Your task to perform on an android device: Clear the shopping cart on target.com. Search for "logitech g pro" on target.com, select the first entry, add it to the cart, then select checkout. Image 0: 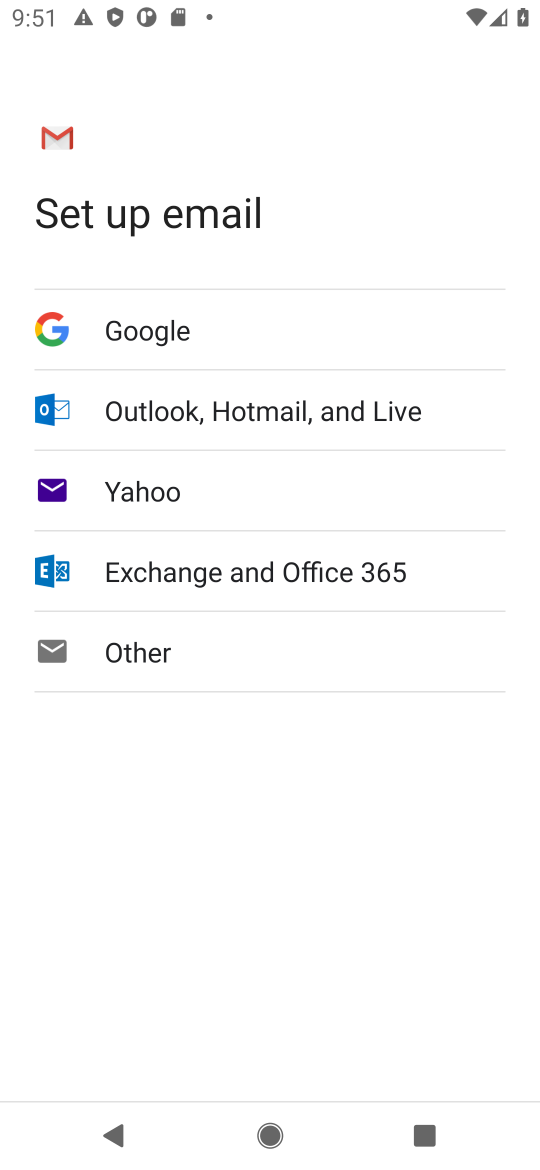
Step 0: press home button
Your task to perform on an android device: Clear the shopping cart on target.com. Search for "logitech g pro" on target.com, select the first entry, add it to the cart, then select checkout. Image 1: 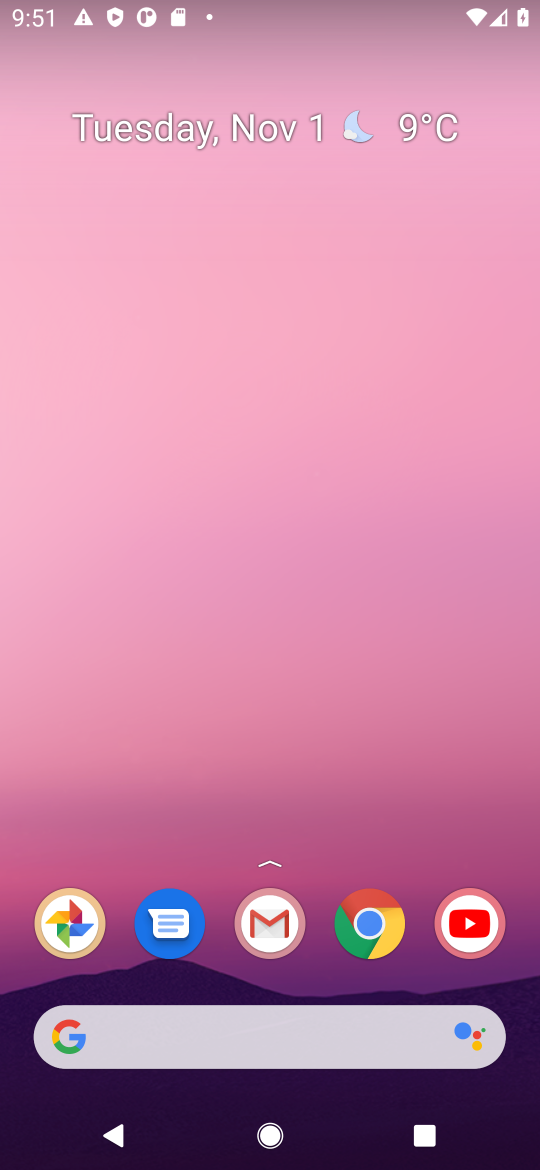
Step 1: drag from (322, 965) to (308, 93)
Your task to perform on an android device: Clear the shopping cart on target.com. Search for "logitech g pro" on target.com, select the first entry, add it to the cart, then select checkout. Image 2: 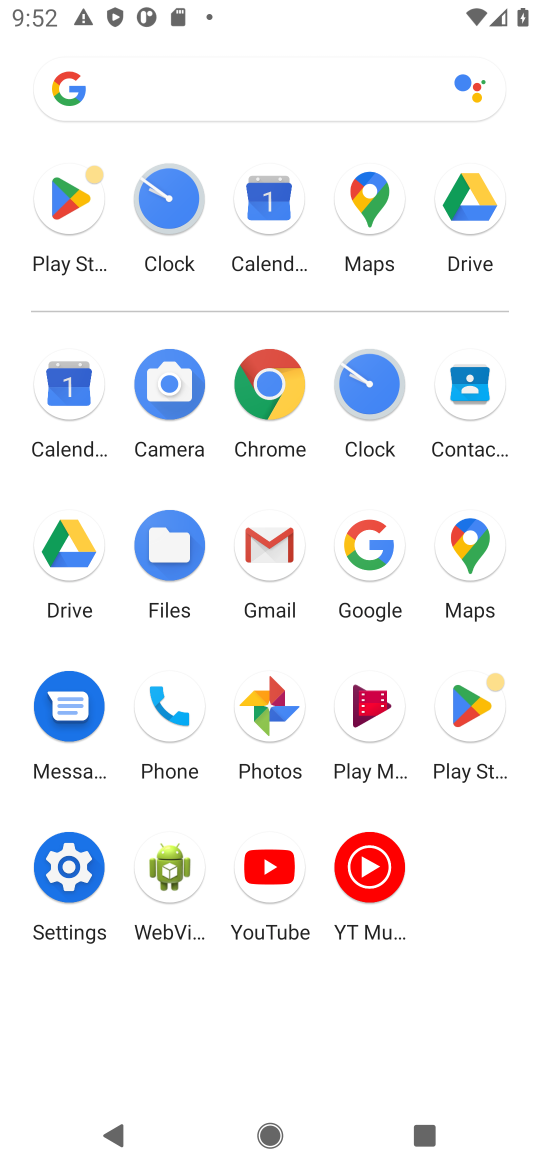
Step 2: click (263, 394)
Your task to perform on an android device: Clear the shopping cart on target.com. Search for "logitech g pro" on target.com, select the first entry, add it to the cart, then select checkout. Image 3: 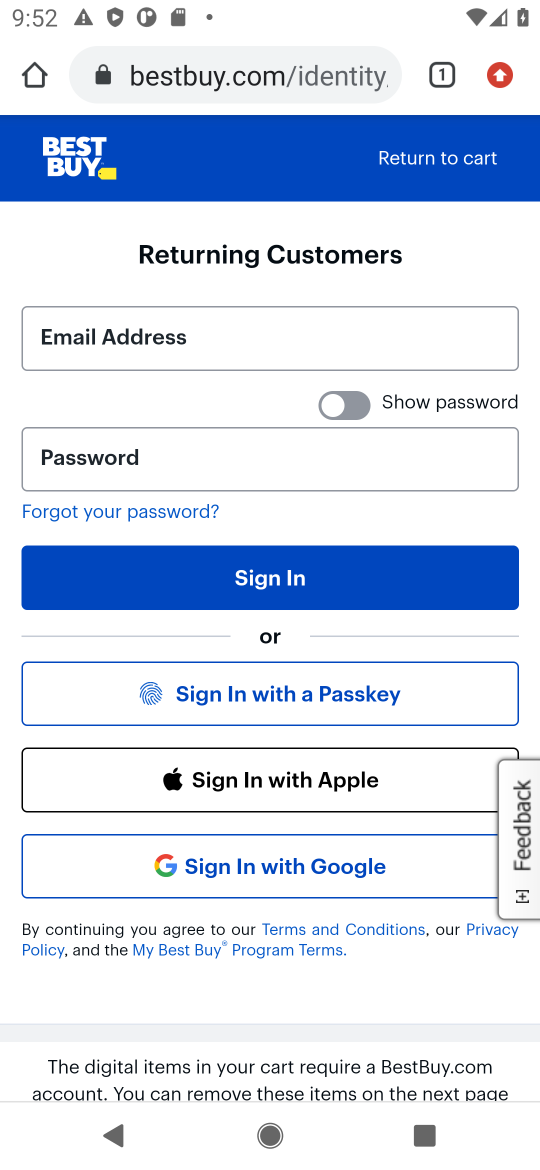
Step 3: click (299, 80)
Your task to perform on an android device: Clear the shopping cart on target.com. Search for "logitech g pro" on target.com, select the first entry, add it to the cart, then select checkout. Image 4: 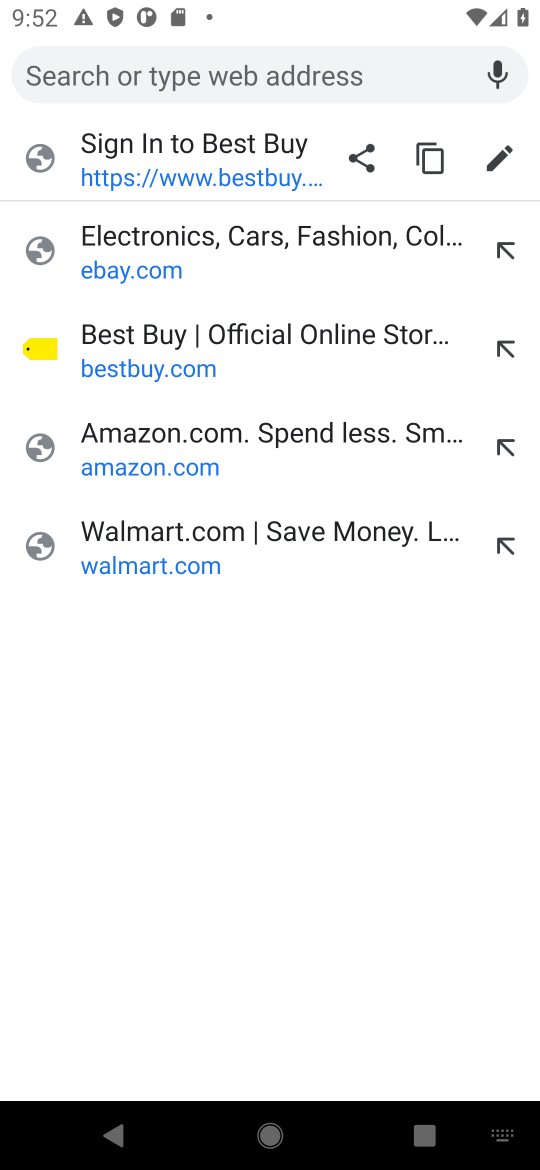
Step 4: type "target.com"
Your task to perform on an android device: Clear the shopping cart on target.com. Search for "logitech g pro" on target.com, select the first entry, add it to the cart, then select checkout. Image 5: 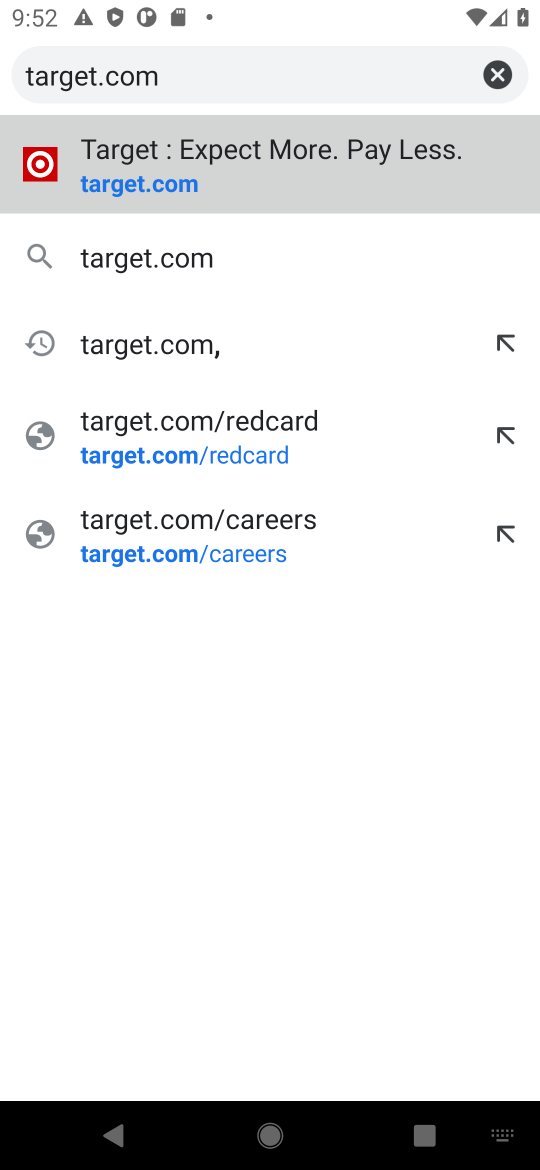
Step 5: press enter
Your task to perform on an android device: Clear the shopping cart on target.com. Search for "logitech g pro" on target.com, select the first entry, add it to the cart, then select checkout. Image 6: 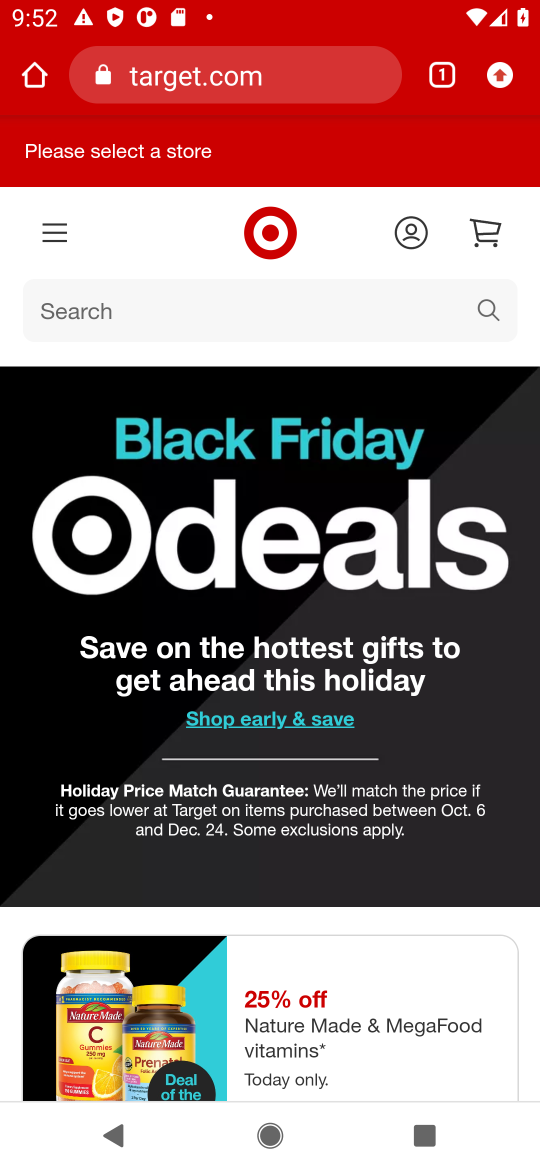
Step 6: drag from (235, 950) to (288, 1120)
Your task to perform on an android device: Clear the shopping cart on target.com. Search for "logitech g pro" on target.com, select the first entry, add it to the cart, then select checkout. Image 7: 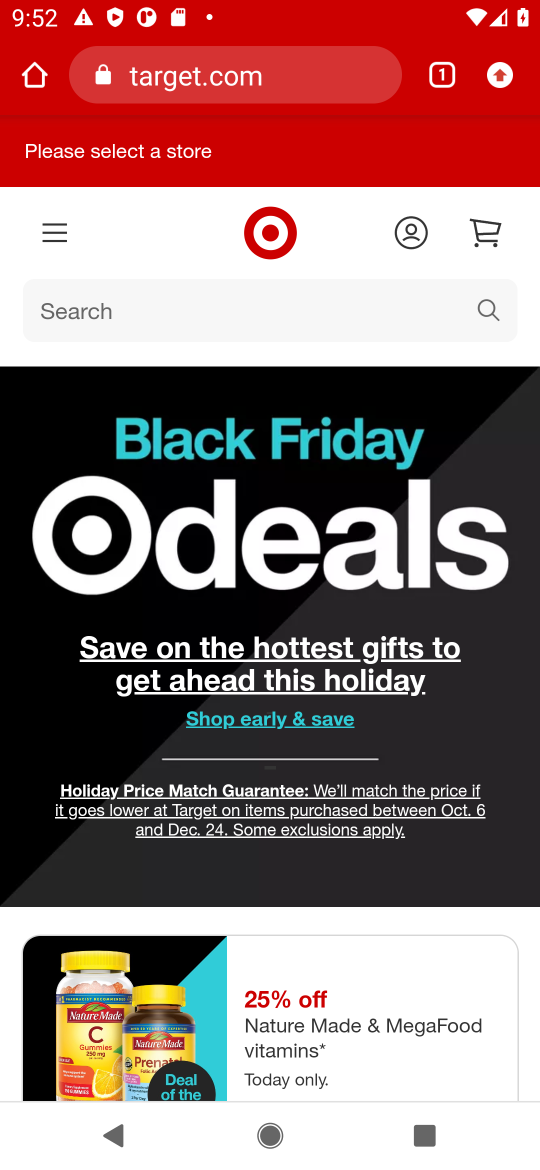
Step 7: click (485, 158)
Your task to perform on an android device: Clear the shopping cart on target.com. Search for "logitech g pro" on target.com, select the first entry, add it to the cart, then select checkout. Image 8: 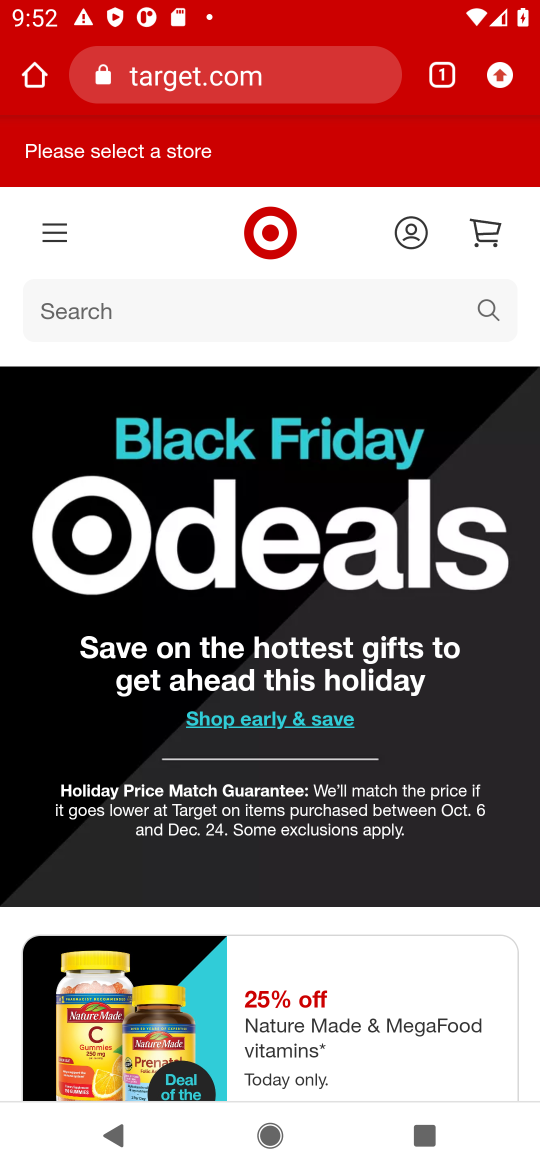
Step 8: click (492, 225)
Your task to perform on an android device: Clear the shopping cart on target.com. Search for "logitech g pro" on target.com, select the first entry, add it to the cart, then select checkout. Image 9: 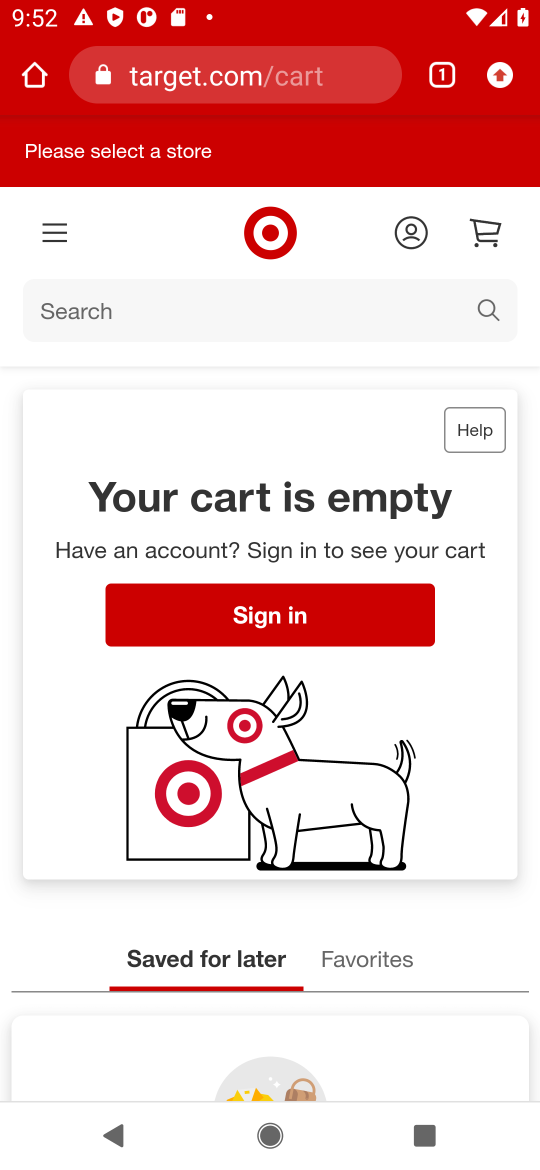
Step 9: click (186, 317)
Your task to perform on an android device: Clear the shopping cart on target.com. Search for "logitech g pro" on target.com, select the first entry, add it to the cart, then select checkout. Image 10: 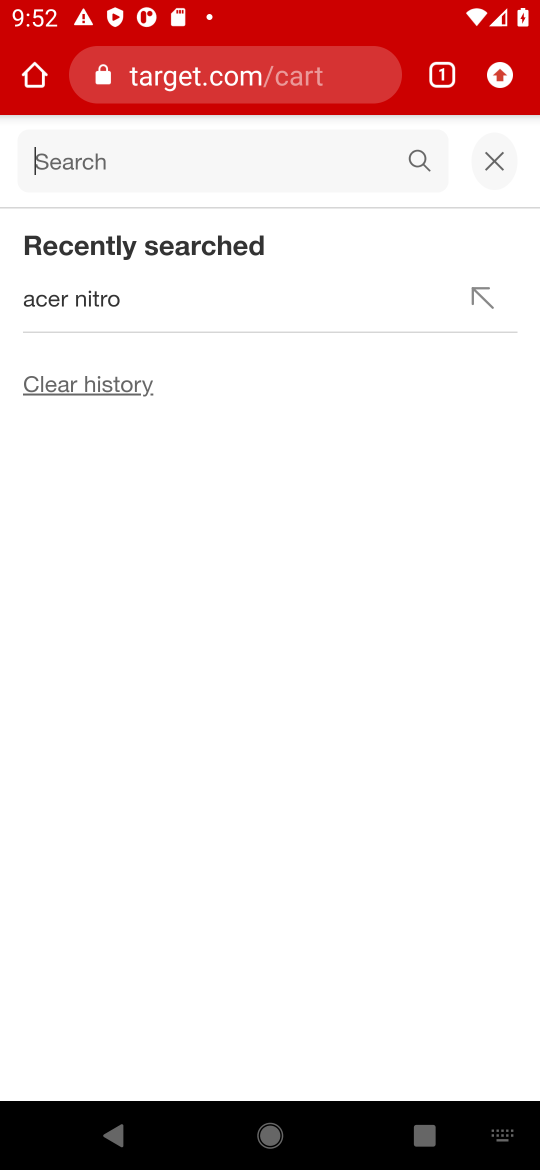
Step 10: type "logitech g pro"
Your task to perform on an android device: Clear the shopping cart on target.com. Search for "logitech g pro" on target.com, select the first entry, add it to the cart, then select checkout. Image 11: 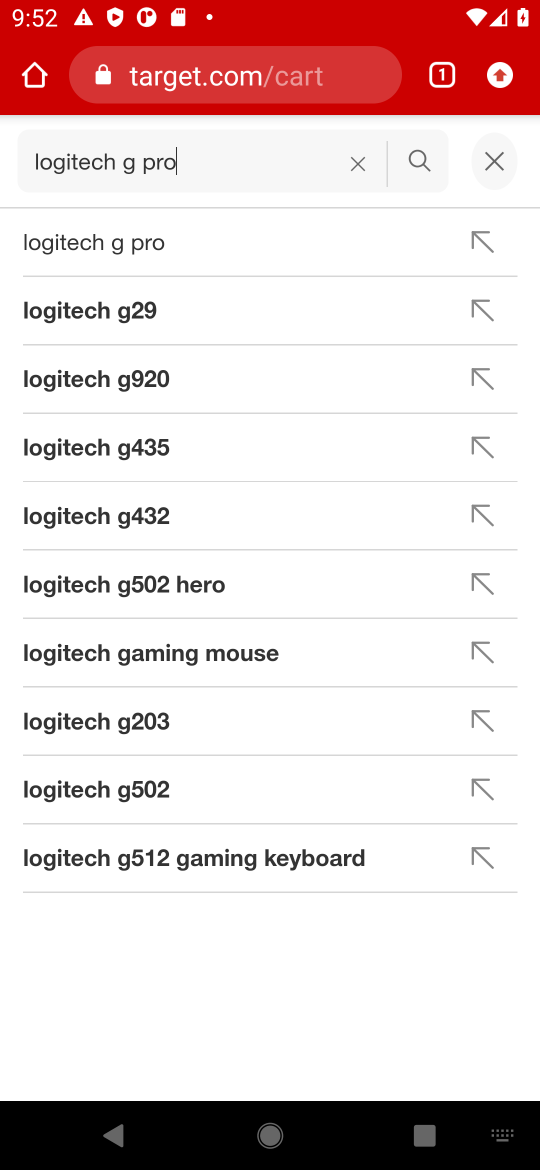
Step 11: press enter
Your task to perform on an android device: Clear the shopping cart on target.com. Search for "logitech g pro" on target.com, select the first entry, add it to the cart, then select checkout. Image 12: 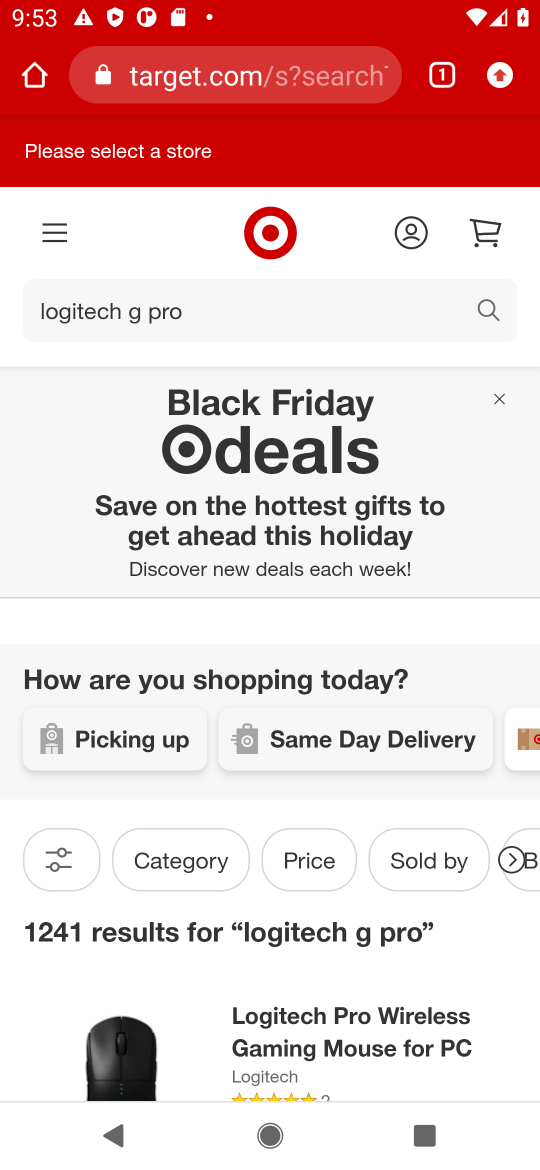
Step 12: drag from (292, 1010) to (363, 354)
Your task to perform on an android device: Clear the shopping cart on target.com. Search for "logitech g pro" on target.com, select the first entry, add it to the cart, then select checkout. Image 13: 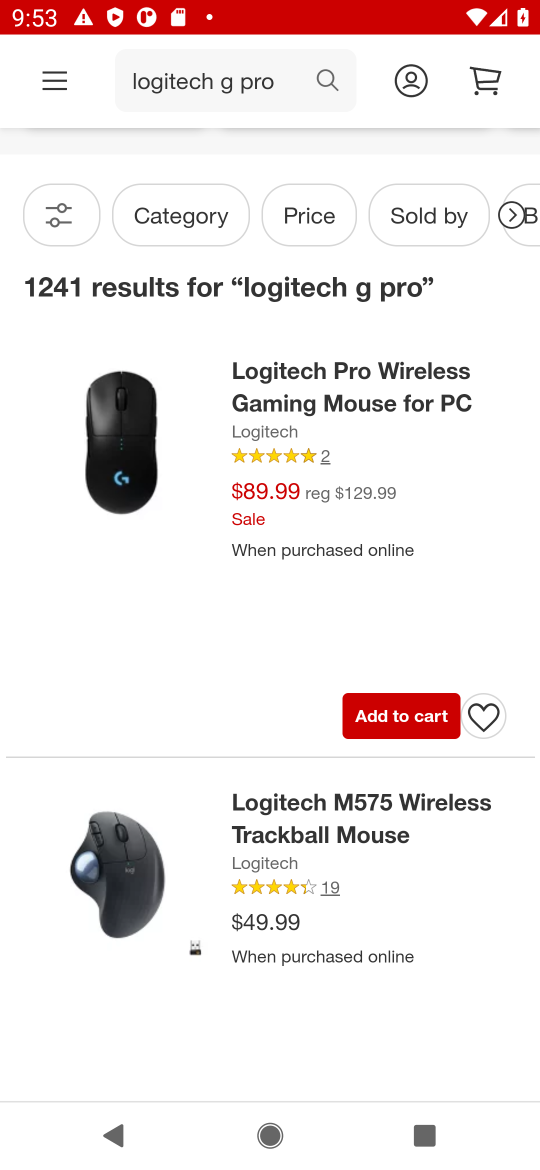
Step 13: click (387, 714)
Your task to perform on an android device: Clear the shopping cart on target.com. Search for "logitech g pro" on target.com, select the first entry, add it to the cart, then select checkout. Image 14: 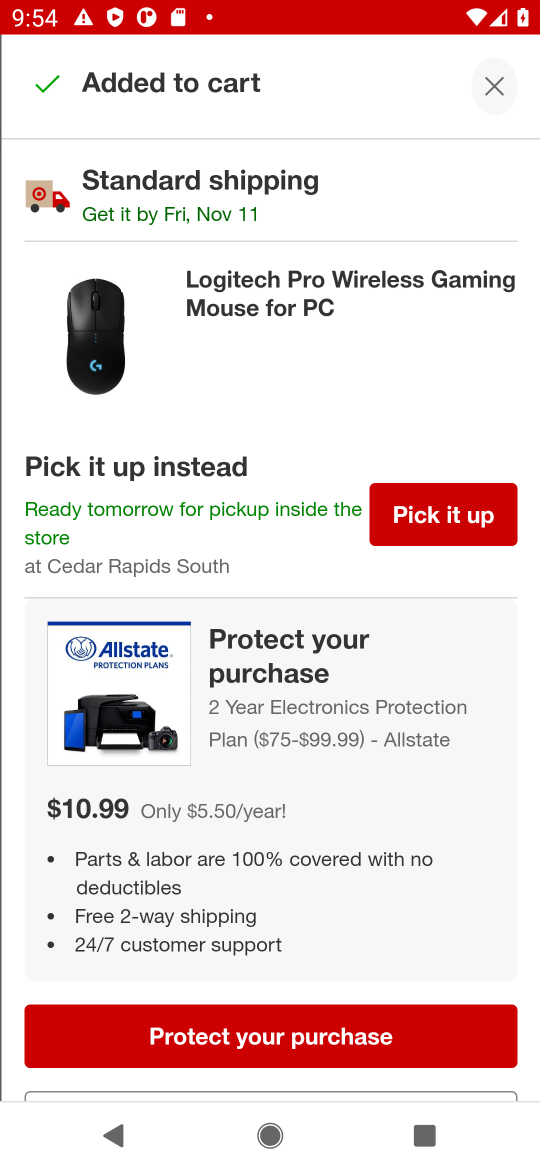
Step 14: drag from (415, 863) to (515, 1147)
Your task to perform on an android device: Clear the shopping cart on target.com. Search for "logitech g pro" on target.com, select the first entry, add it to the cart, then select checkout. Image 15: 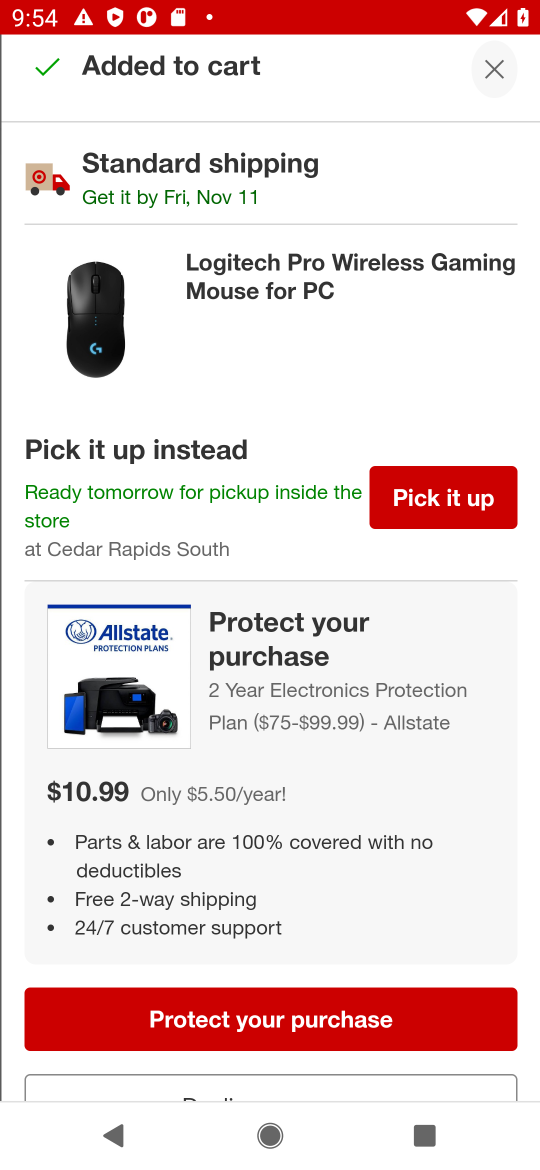
Step 15: drag from (316, 819) to (299, 423)
Your task to perform on an android device: Clear the shopping cart on target.com. Search for "logitech g pro" on target.com, select the first entry, add it to the cart, then select checkout. Image 16: 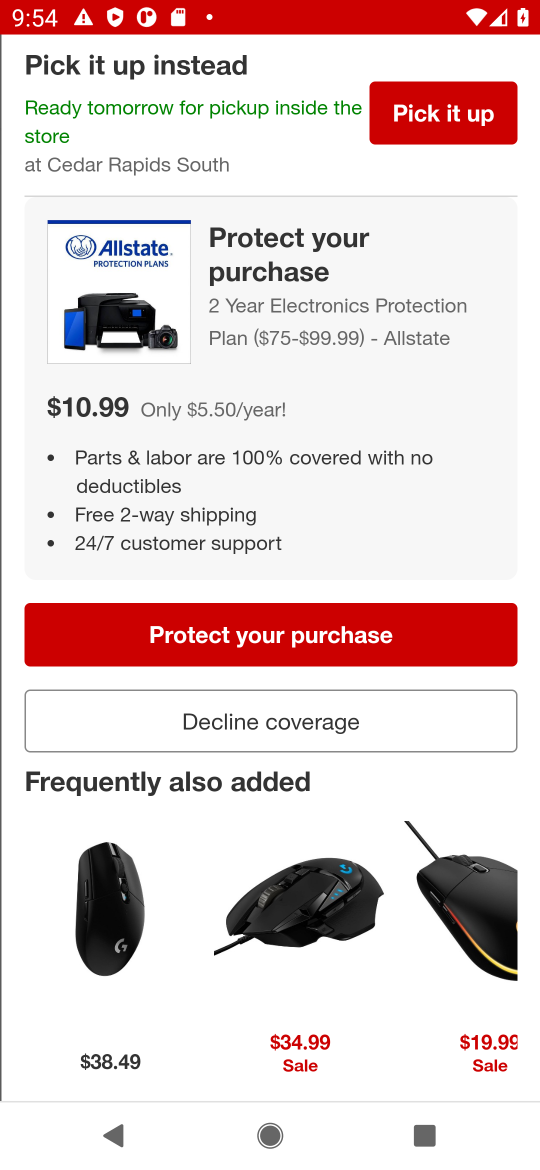
Step 16: click (368, 722)
Your task to perform on an android device: Clear the shopping cart on target.com. Search for "logitech g pro" on target.com, select the first entry, add it to the cart, then select checkout. Image 17: 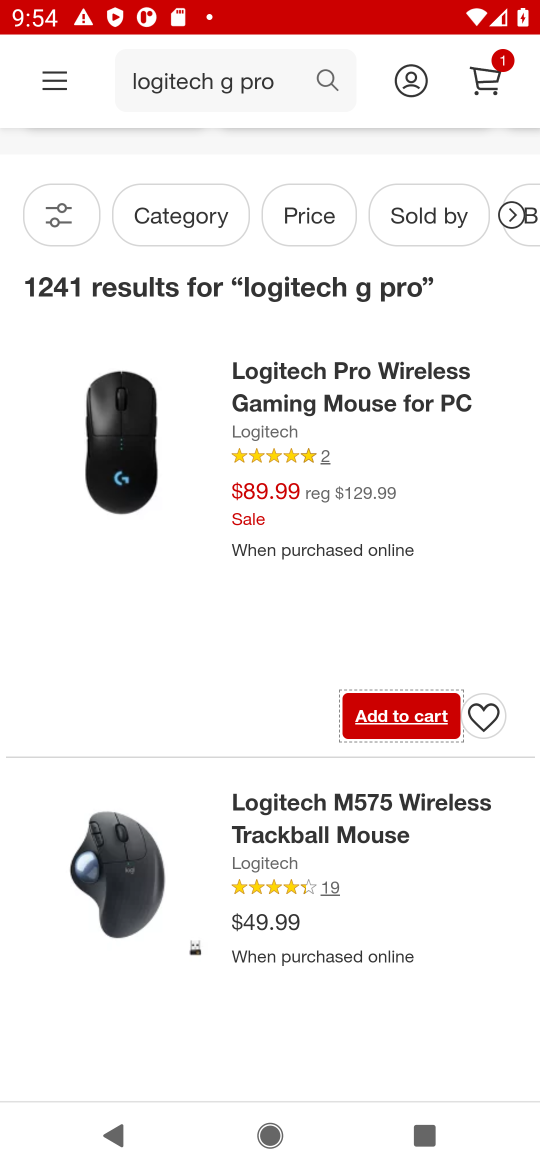
Step 17: click (493, 81)
Your task to perform on an android device: Clear the shopping cart on target.com. Search for "logitech g pro" on target.com, select the first entry, add it to the cart, then select checkout. Image 18: 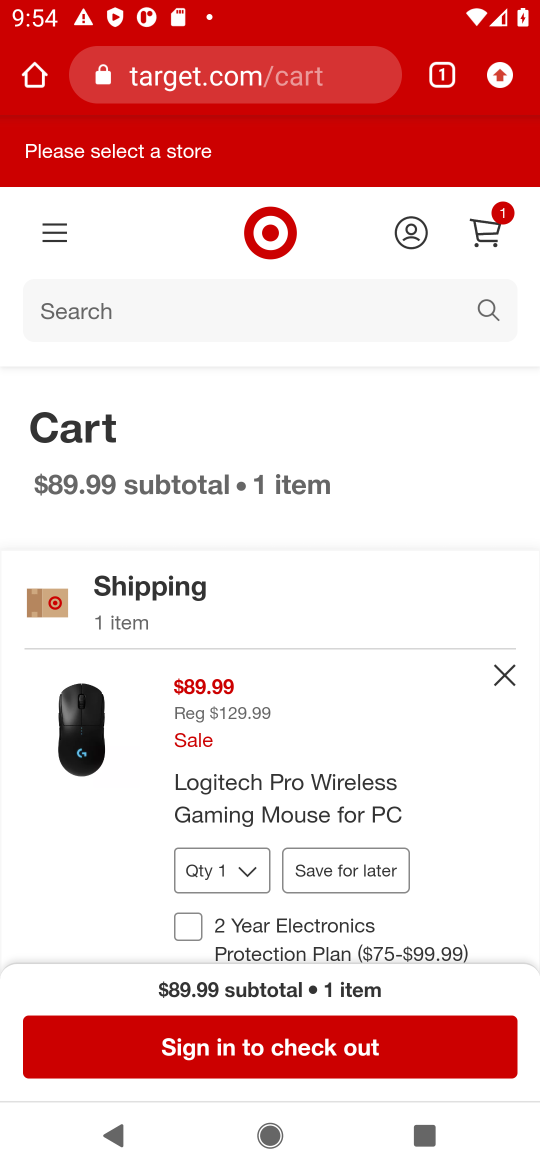
Step 18: click (370, 1041)
Your task to perform on an android device: Clear the shopping cart on target.com. Search for "logitech g pro" on target.com, select the first entry, add it to the cart, then select checkout. Image 19: 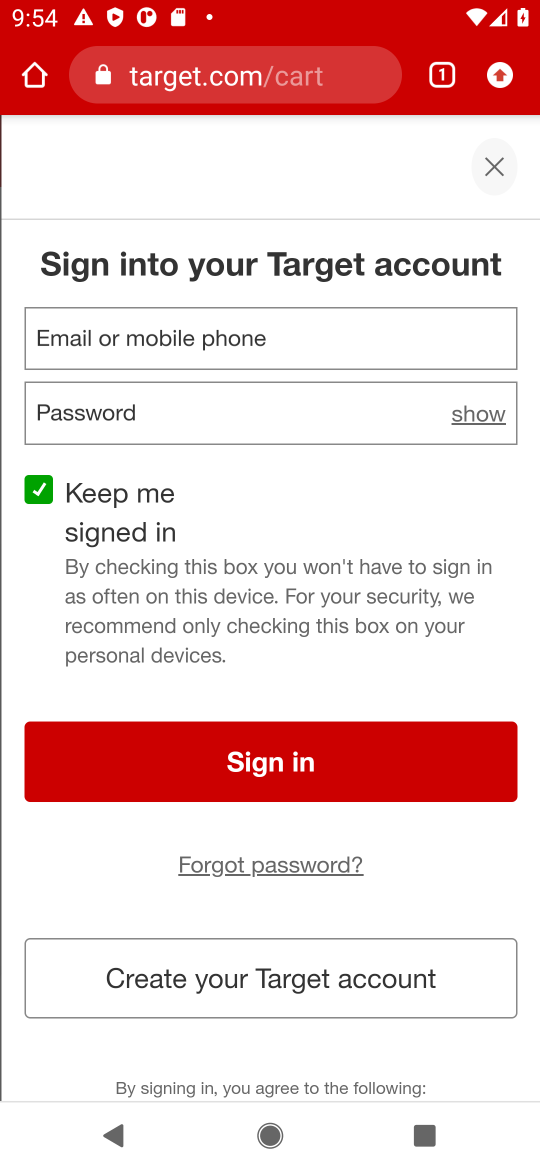
Step 19: task complete